Your task to perform on an android device: Search for logitech g pro on costco.com, select the first entry, add it to the cart, then select checkout. Image 0: 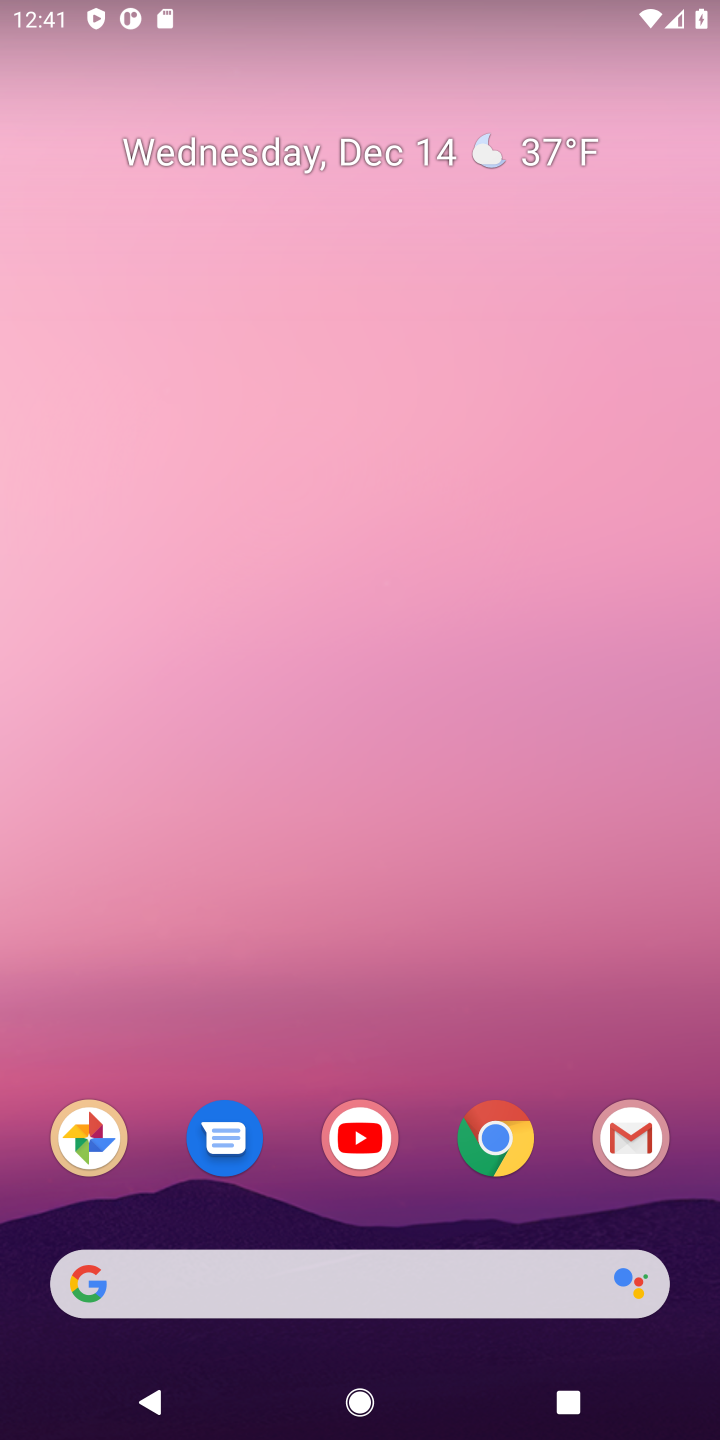
Step 0: click (503, 1144)
Your task to perform on an android device: Search for logitech g pro on costco.com, select the first entry, add it to the cart, then select checkout. Image 1: 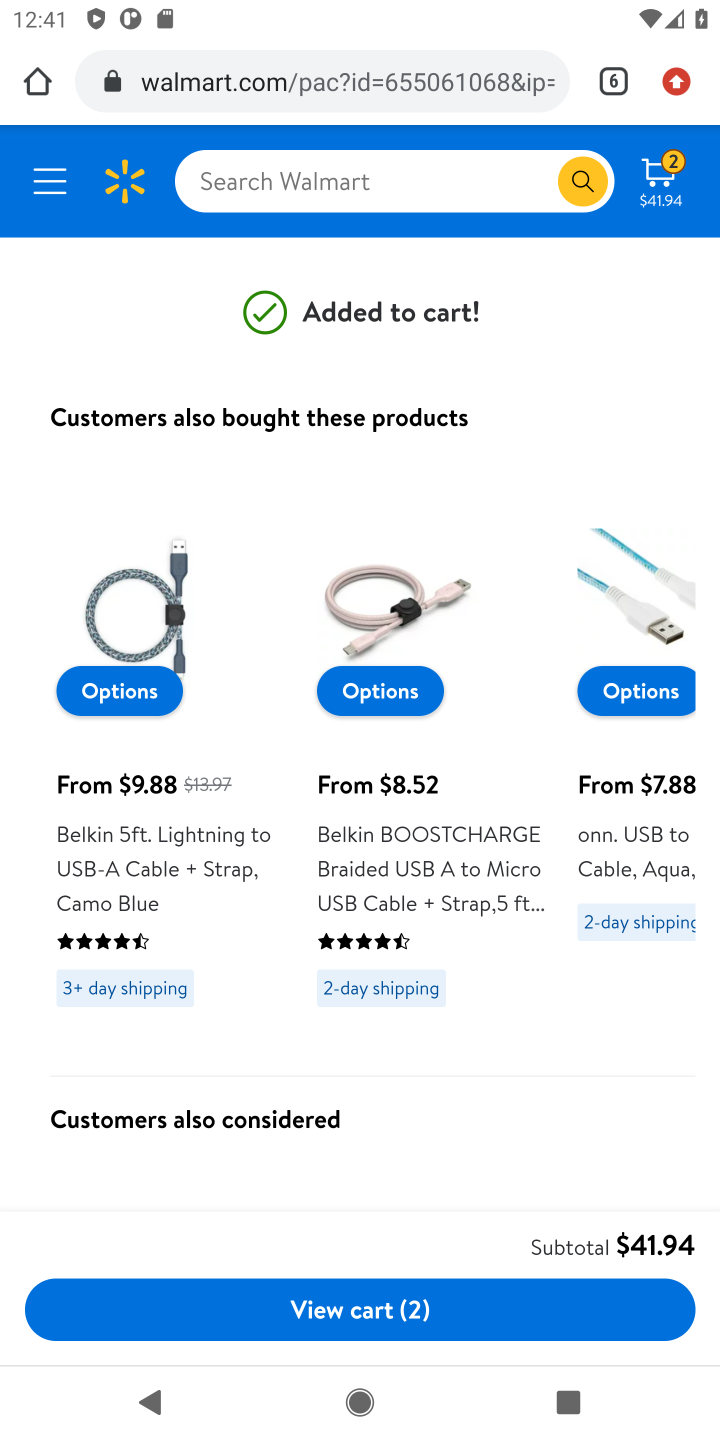
Step 1: click (603, 73)
Your task to perform on an android device: Search for logitech g pro on costco.com, select the first entry, add it to the cart, then select checkout. Image 2: 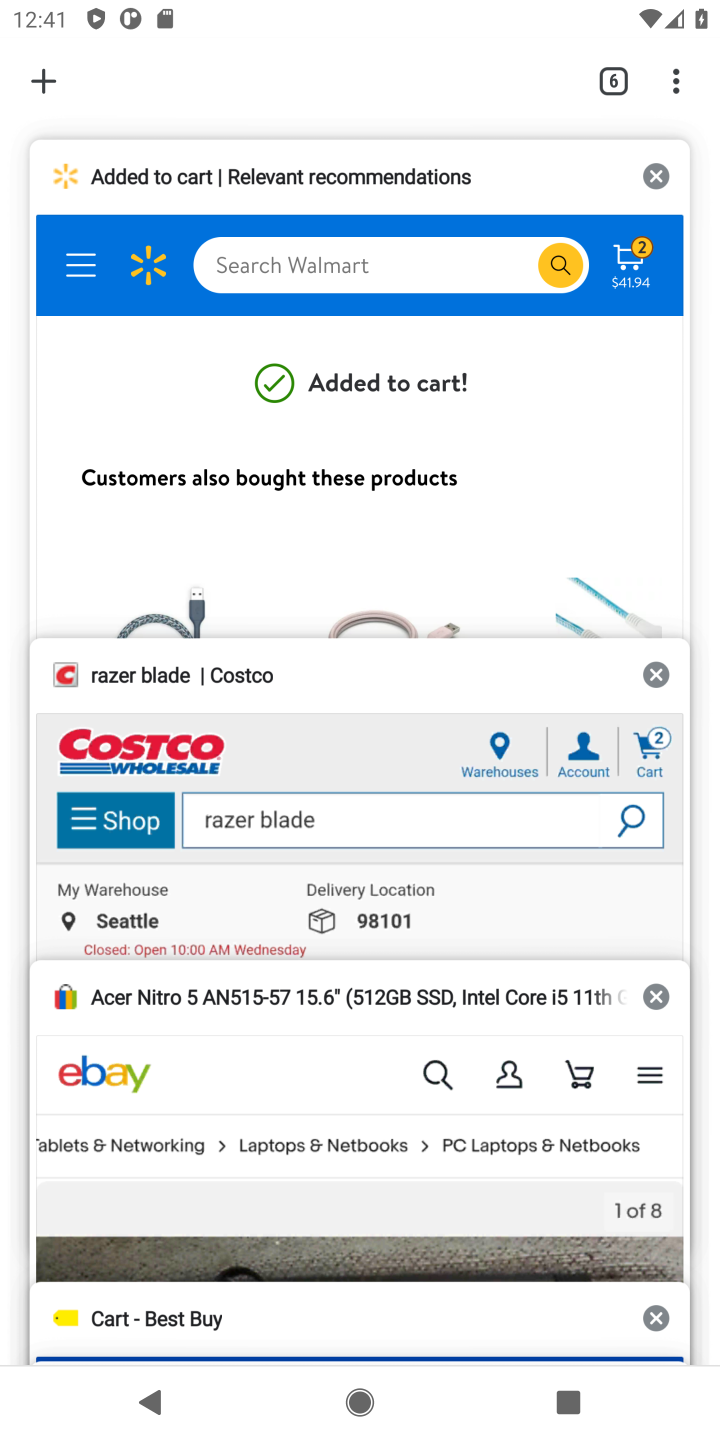
Step 2: click (292, 835)
Your task to perform on an android device: Search for logitech g pro on costco.com, select the first entry, add it to the cart, then select checkout. Image 3: 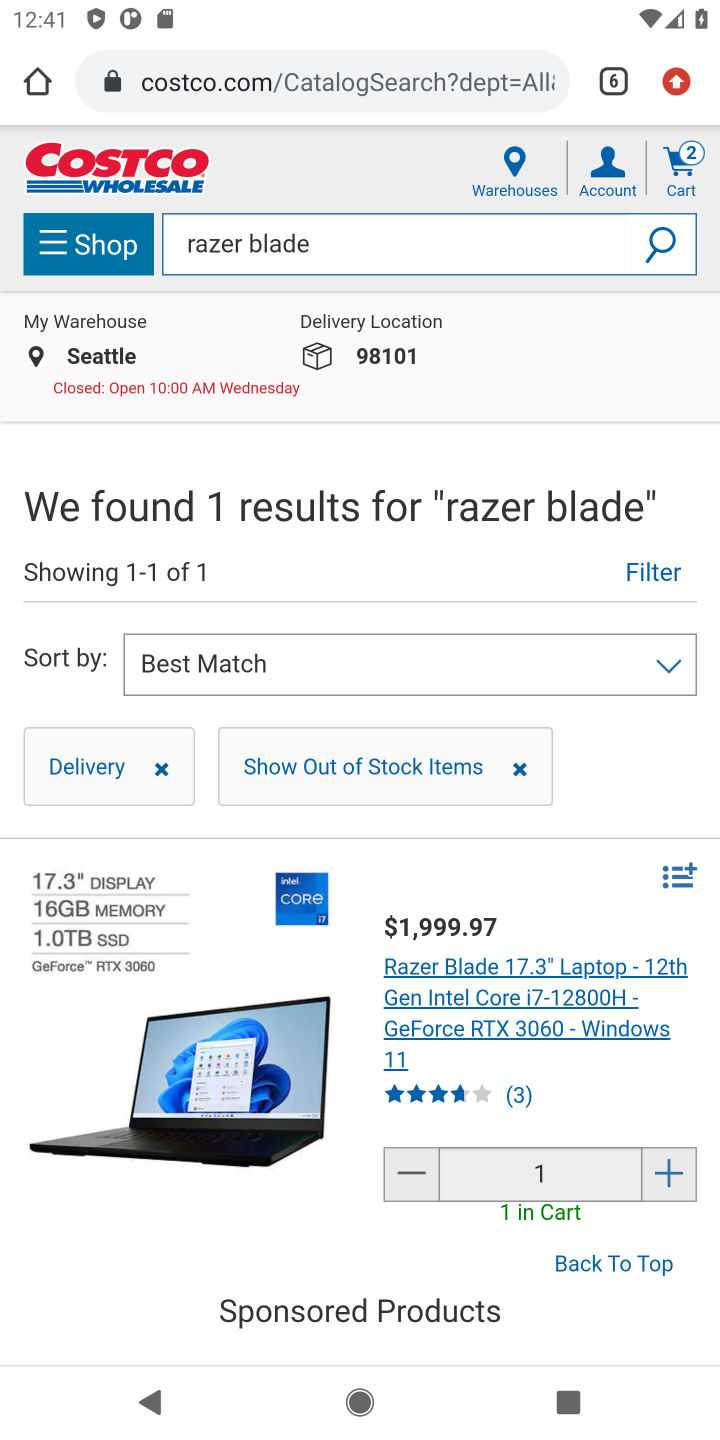
Step 3: click (378, 258)
Your task to perform on an android device: Search for logitech g pro on costco.com, select the first entry, add it to the cart, then select checkout. Image 4: 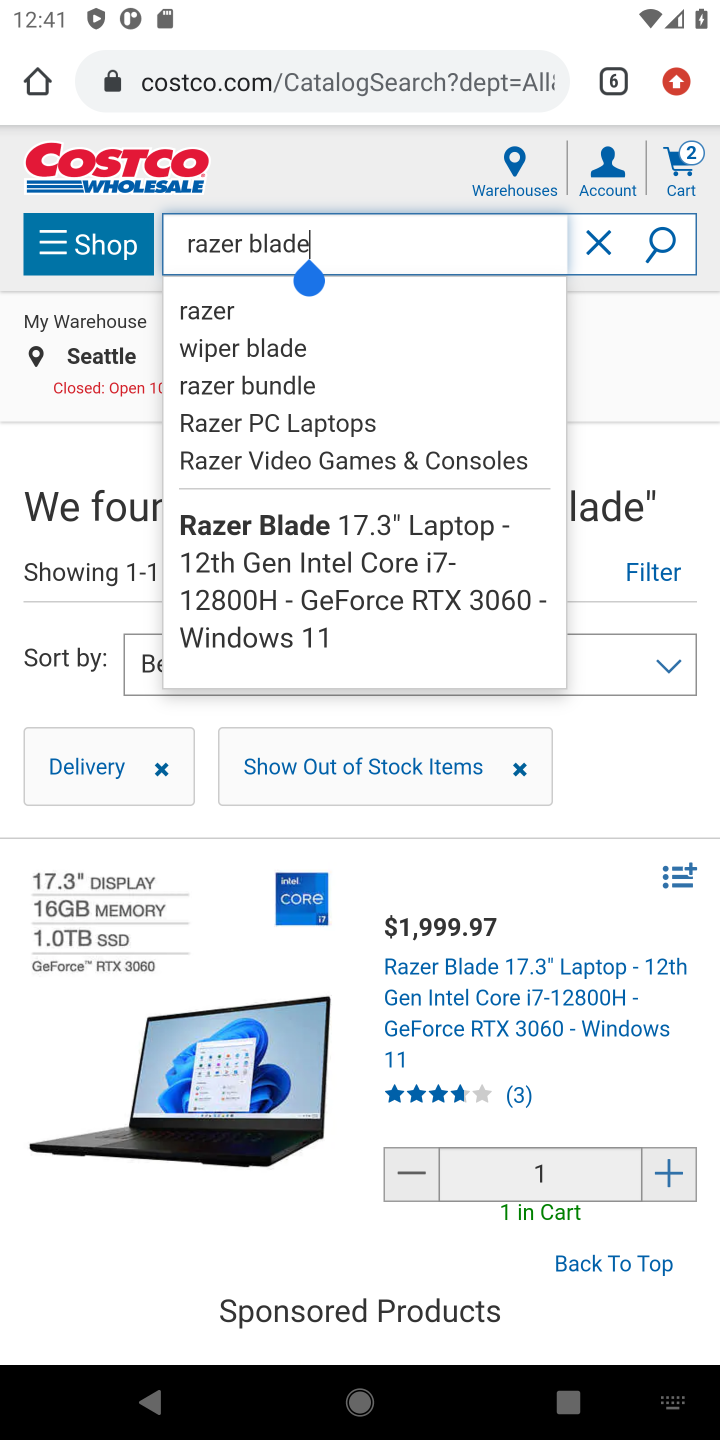
Step 4: click (596, 227)
Your task to perform on an android device: Search for logitech g pro on costco.com, select the first entry, add it to the cart, then select checkout. Image 5: 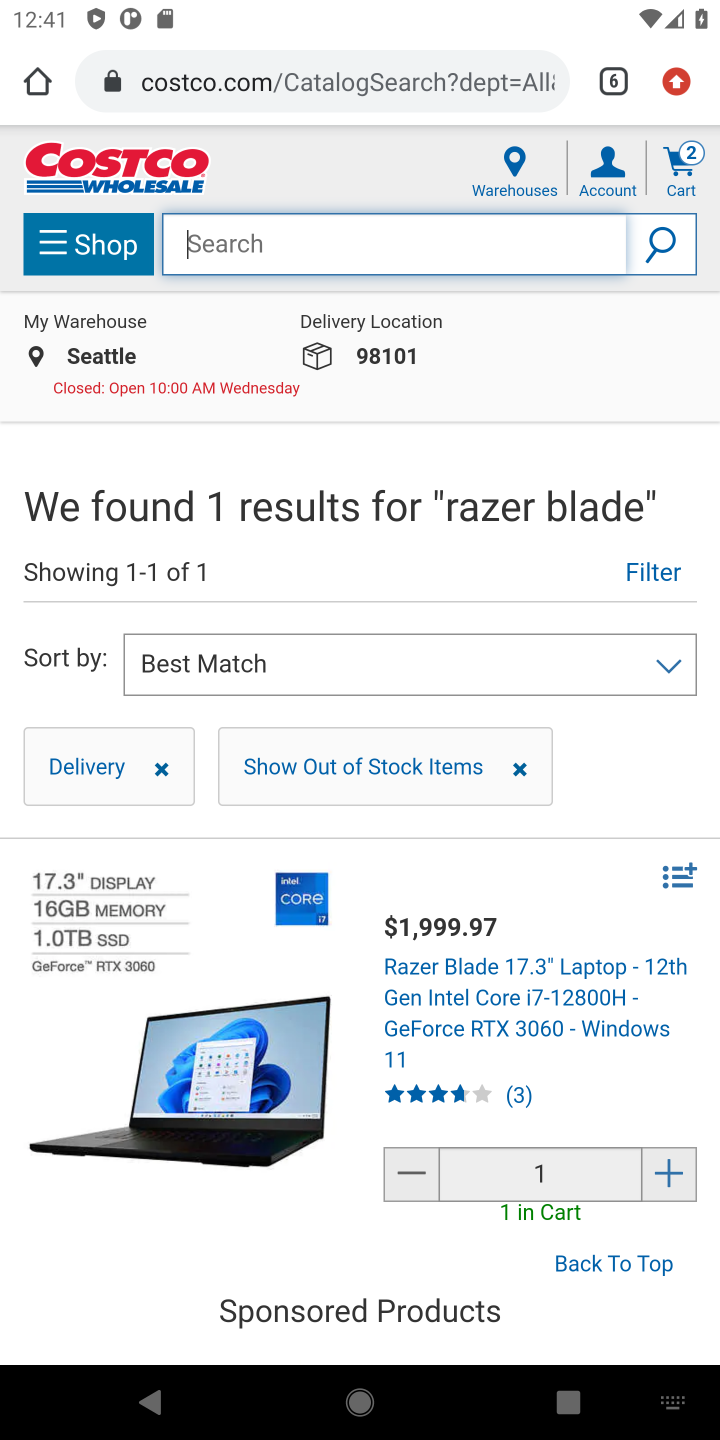
Step 5: type "logitech g pro"
Your task to perform on an android device: Search for logitech g pro on costco.com, select the first entry, add it to the cart, then select checkout. Image 6: 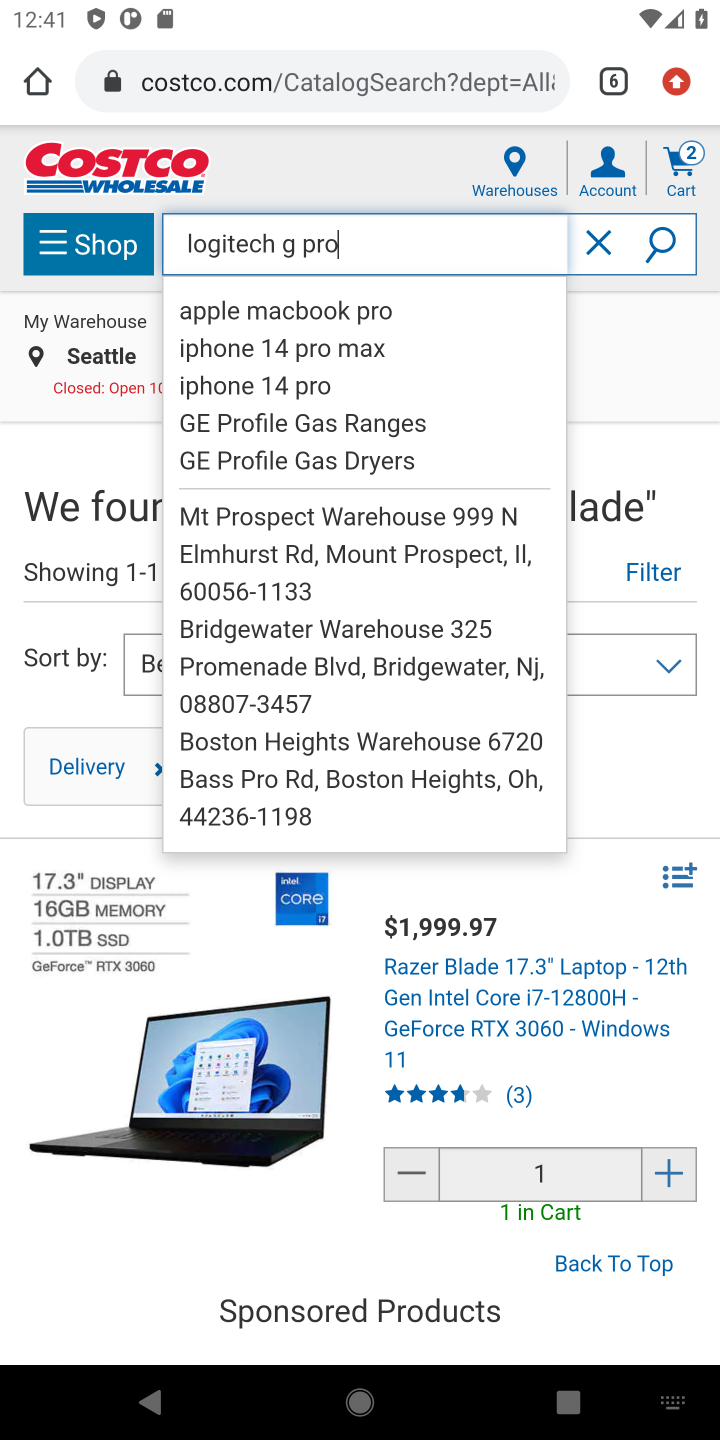
Step 6: click (664, 226)
Your task to perform on an android device: Search for logitech g pro on costco.com, select the first entry, add it to the cart, then select checkout. Image 7: 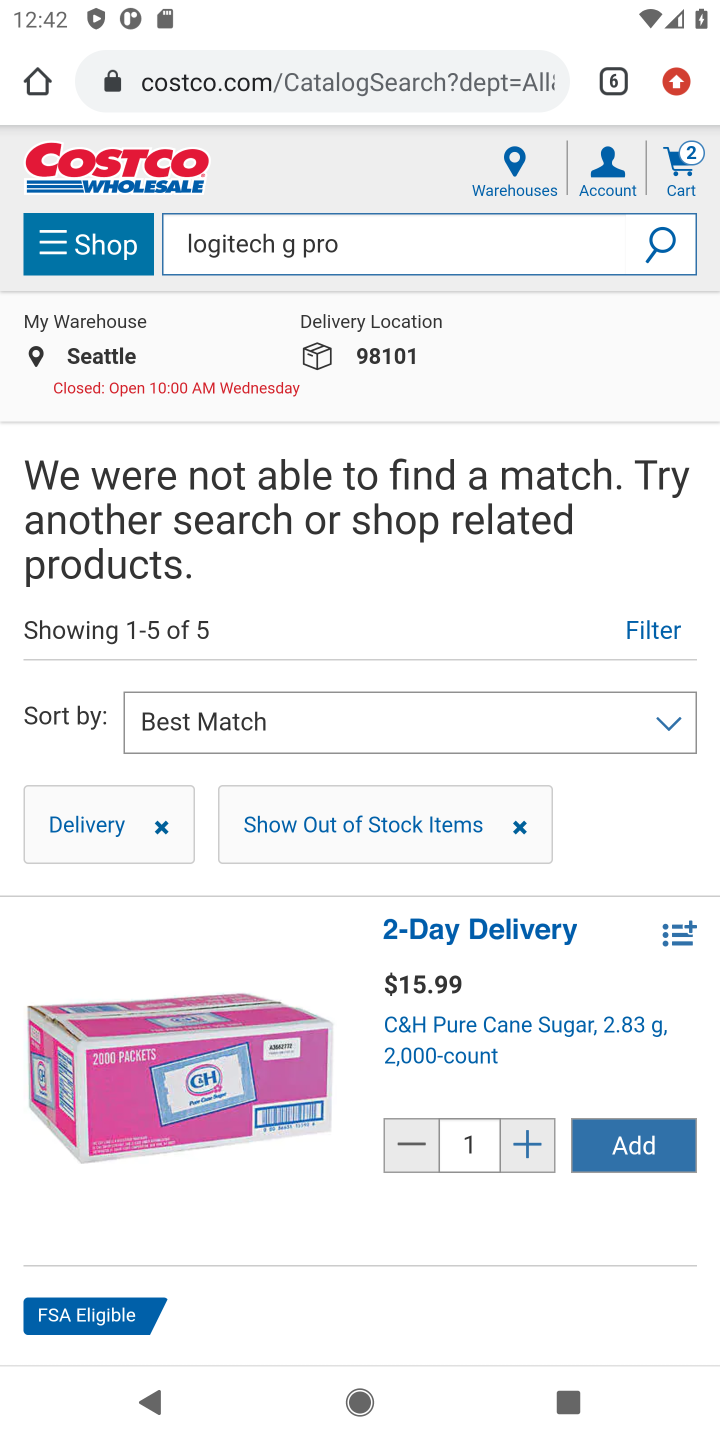
Step 7: task complete